Your task to perform on an android device: toggle airplane mode Image 0: 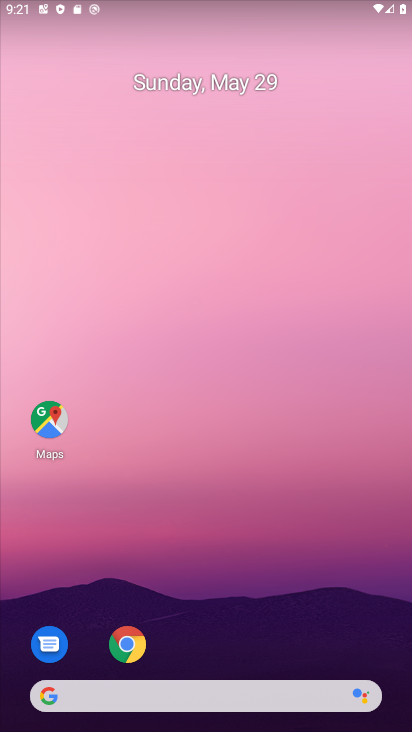
Step 0: drag from (218, 583) to (232, 337)
Your task to perform on an android device: toggle airplane mode Image 1: 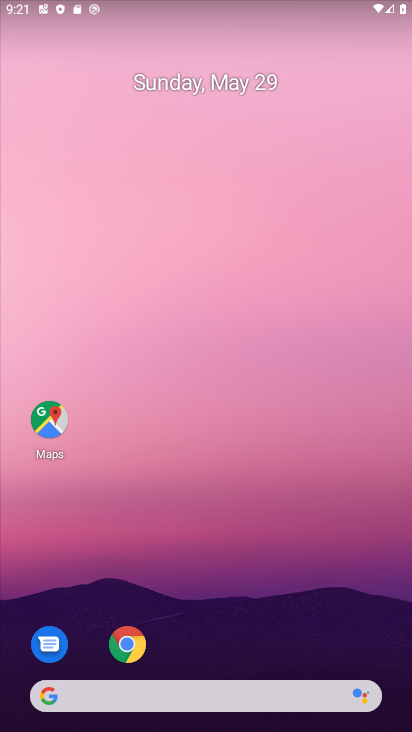
Step 1: drag from (240, 573) to (235, 152)
Your task to perform on an android device: toggle airplane mode Image 2: 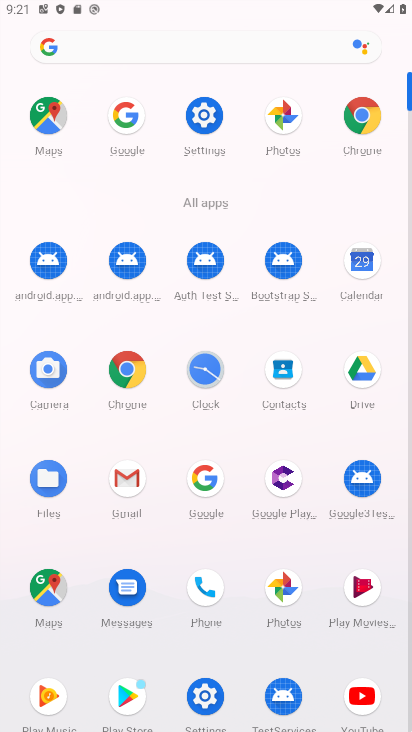
Step 2: click (195, 116)
Your task to perform on an android device: toggle airplane mode Image 3: 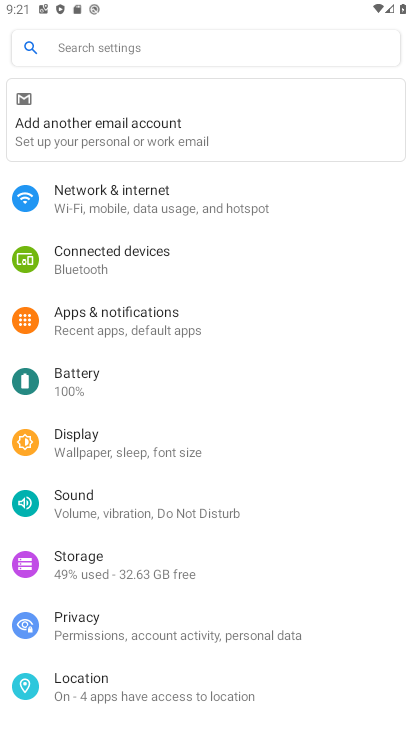
Step 3: click (155, 196)
Your task to perform on an android device: toggle airplane mode Image 4: 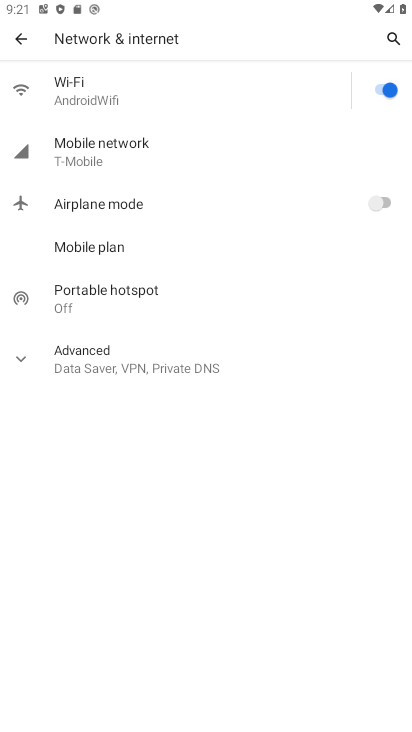
Step 4: click (385, 202)
Your task to perform on an android device: toggle airplane mode Image 5: 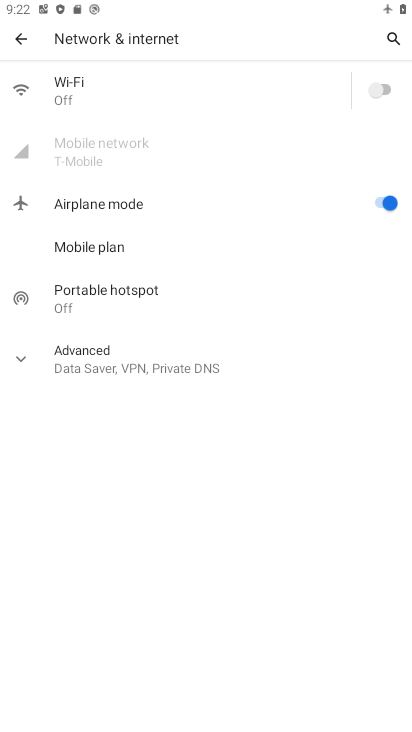
Step 5: task complete